Your task to perform on an android device: turn off wifi Image 0: 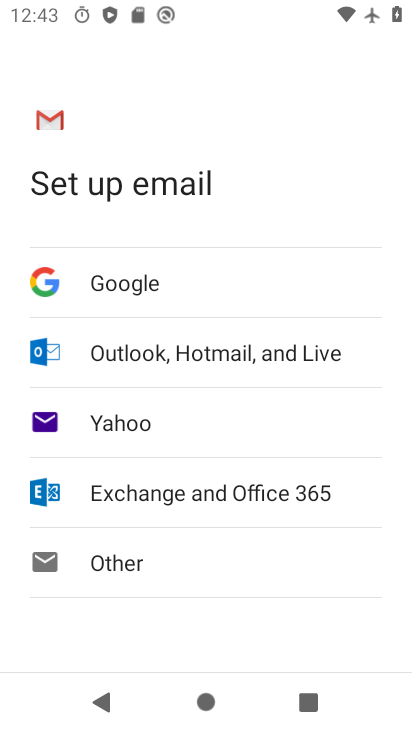
Step 0: press home button
Your task to perform on an android device: turn off wifi Image 1: 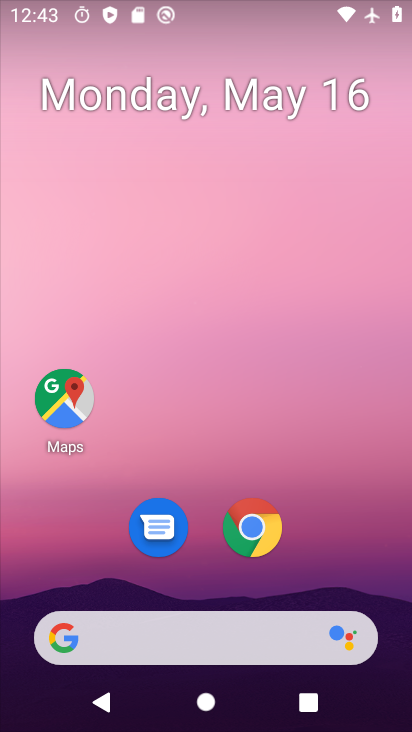
Step 1: drag from (180, 639) to (296, 80)
Your task to perform on an android device: turn off wifi Image 2: 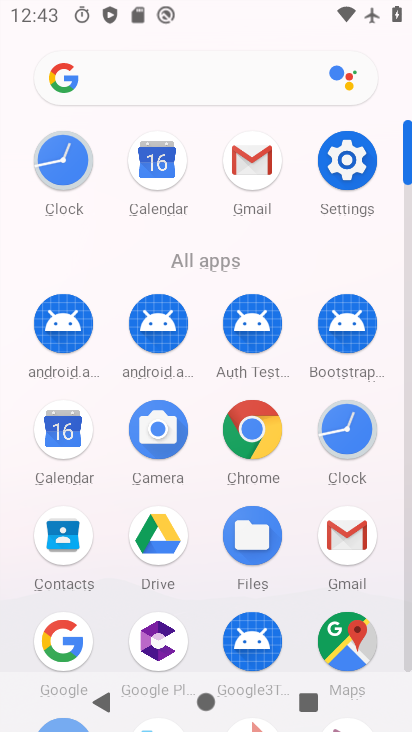
Step 2: click (353, 176)
Your task to perform on an android device: turn off wifi Image 3: 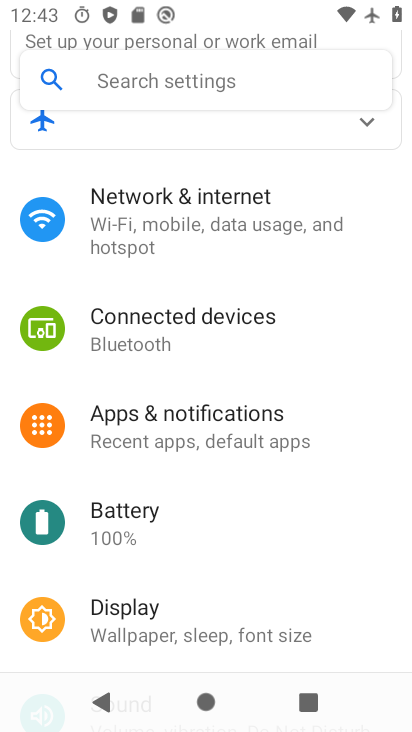
Step 3: click (199, 219)
Your task to perform on an android device: turn off wifi Image 4: 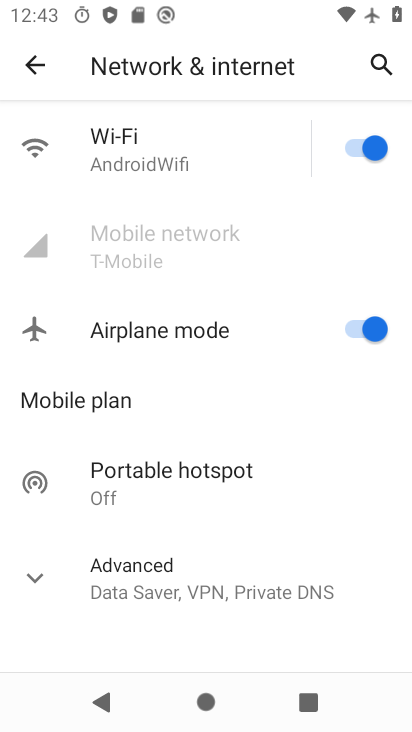
Step 4: click (351, 144)
Your task to perform on an android device: turn off wifi Image 5: 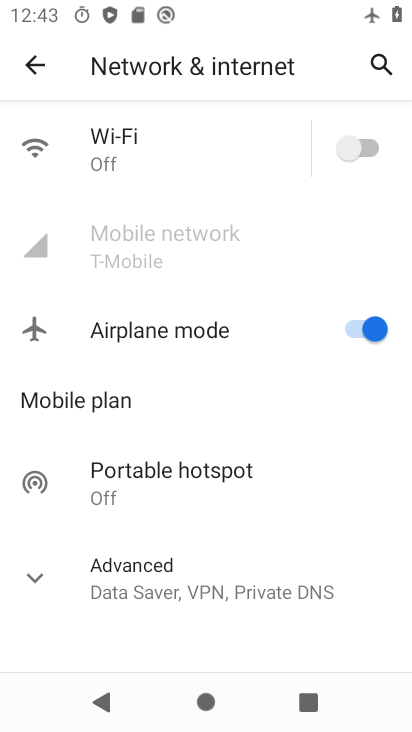
Step 5: task complete